Your task to perform on an android device: turn off translation in the chrome app Image 0: 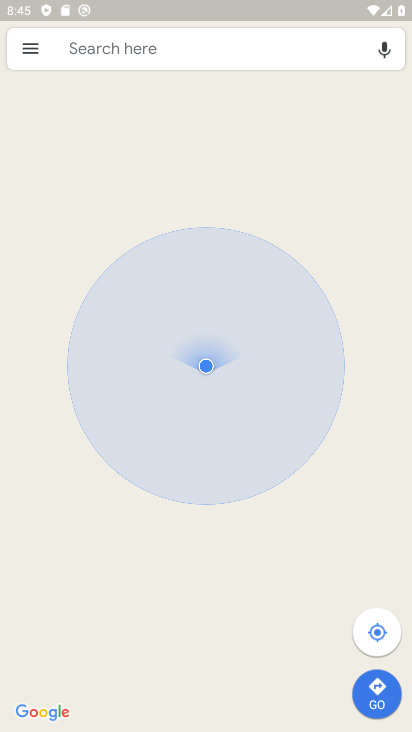
Step 0: press home button
Your task to perform on an android device: turn off translation in the chrome app Image 1: 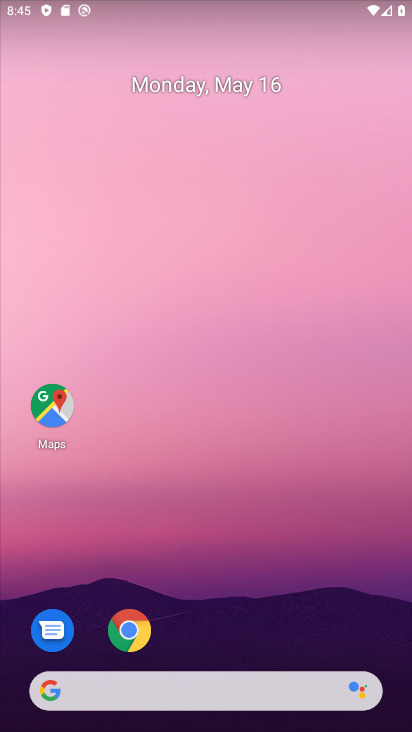
Step 1: click (124, 632)
Your task to perform on an android device: turn off translation in the chrome app Image 2: 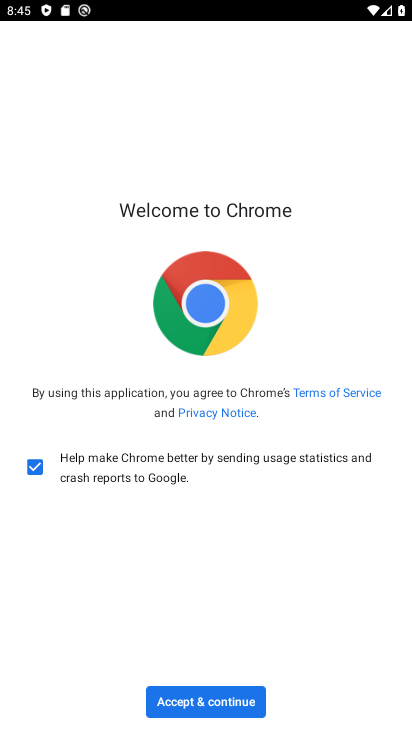
Step 2: click (232, 712)
Your task to perform on an android device: turn off translation in the chrome app Image 3: 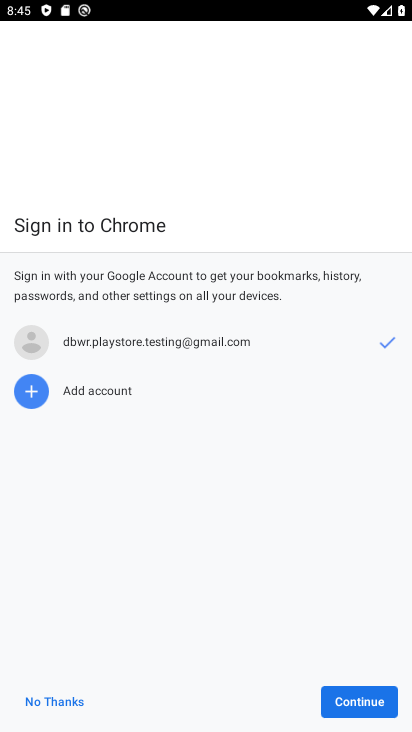
Step 3: click (331, 693)
Your task to perform on an android device: turn off translation in the chrome app Image 4: 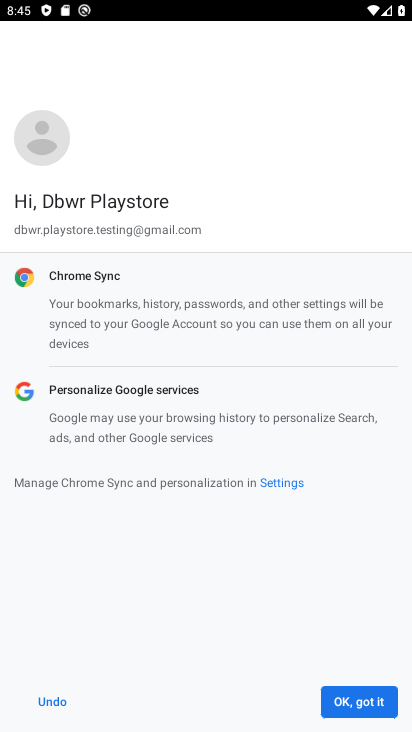
Step 4: click (352, 700)
Your task to perform on an android device: turn off translation in the chrome app Image 5: 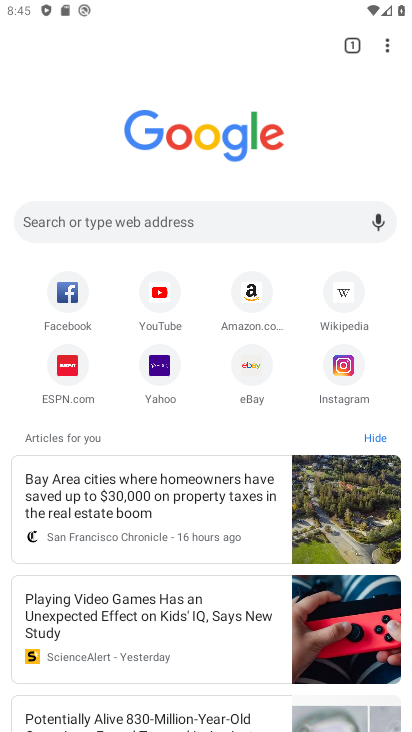
Step 5: drag from (395, 37) to (319, 395)
Your task to perform on an android device: turn off translation in the chrome app Image 6: 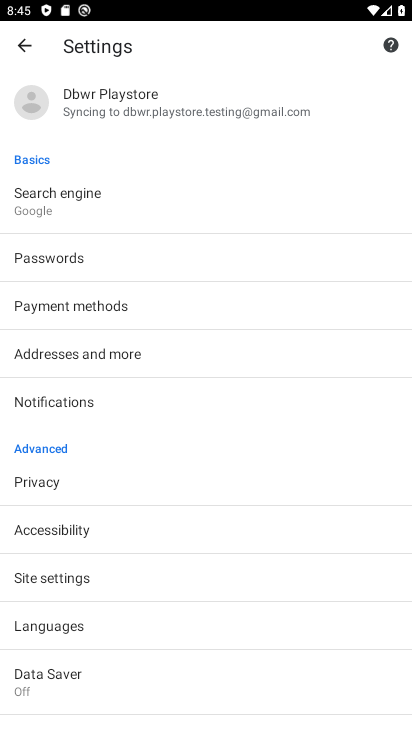
Step 6: drag from (185, 618) to (278, 359)
Your task to perform on an android device: turn off translation in the chrome app Image 7: 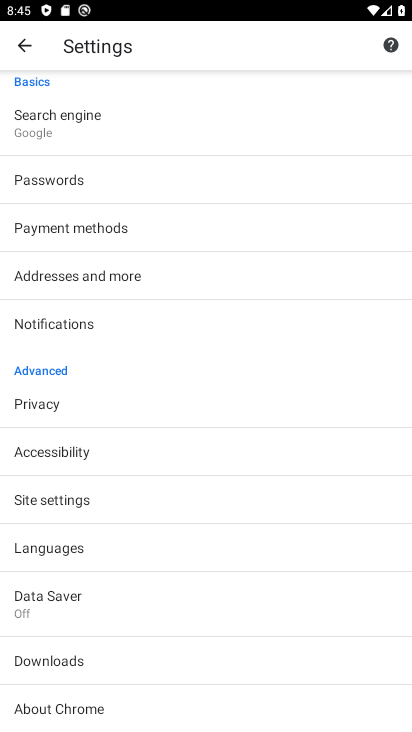
Step 7: click (127, 555)
Your task to perform on an android device: turn off translation in the chrome app Image 8: 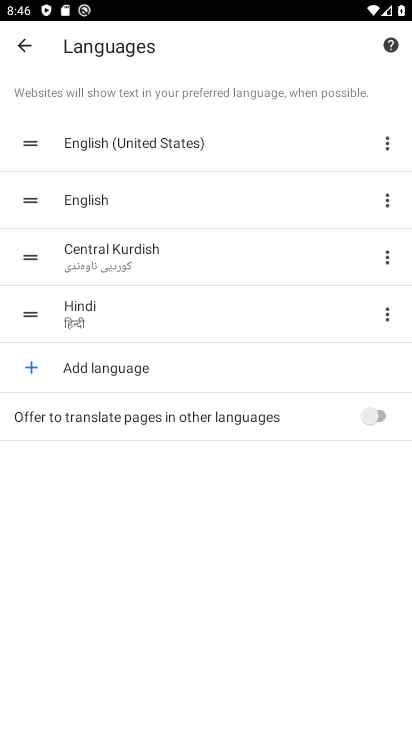
Step 8: task complete